Your task to perform on an android device: add a label to a message in the gmail app Image 0: 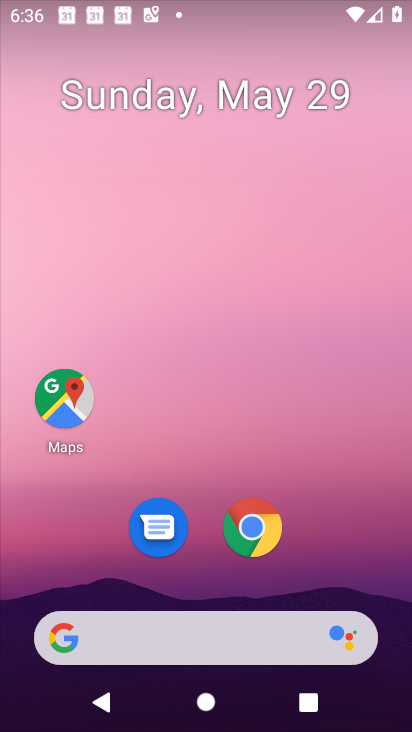
Step 0: drag from (377, 649) to (231, 1)
Your task to perform on an android device: add a label to a message in the gmail app Image 1: 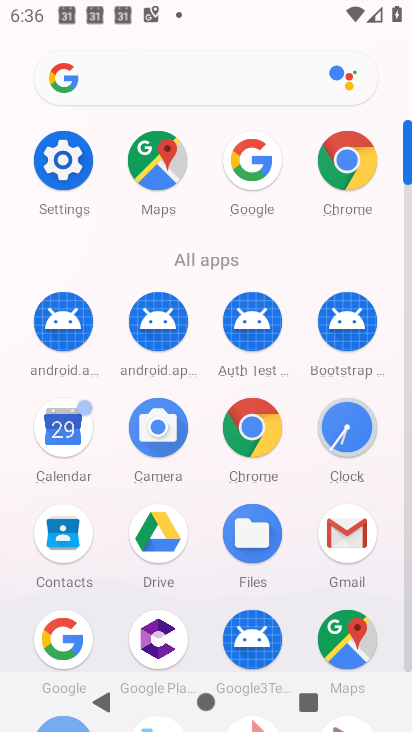
Step 1: click (331, 560)
Your task to perform on an android device: add a label to a message in the gmail app Image 2: 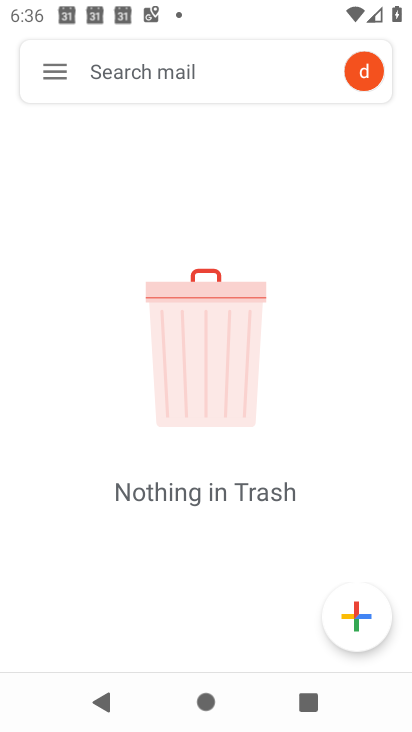
Step 2: click (65, 48)
Your task to perform on an android device: add a label to a message in the gmail app Image 3: 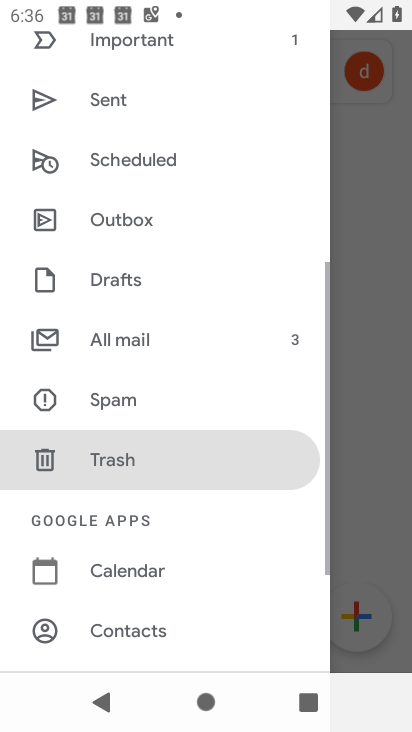
Step 3: drag from (85, 113) to (179, 710)
Your task to perform on an android device: add a label to a message in the gmail app Image 4: 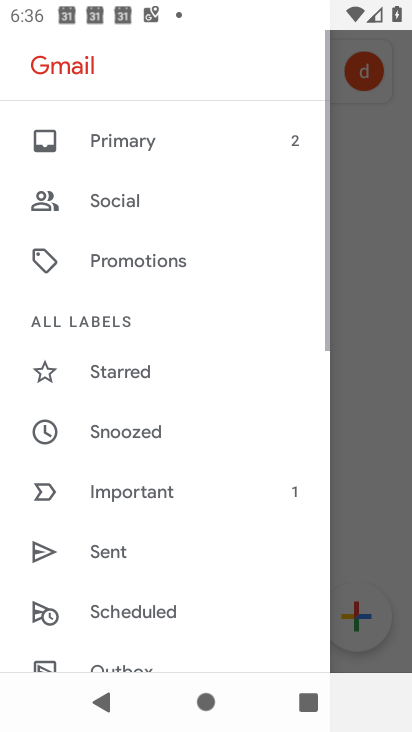
Step 4: click (177, 150)
Your task to perform on an android device: add a label to a message in the gmail app Image 5: 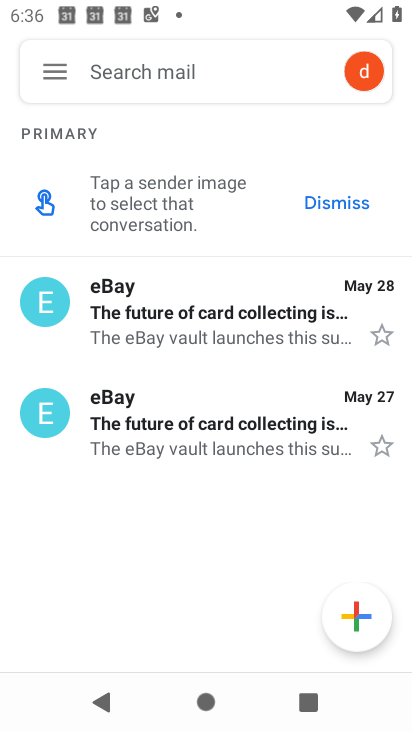
Step 5: task complete